Your task to perform on an android device: open app "Facebook Messenger" (install if not already installed) Image 0: 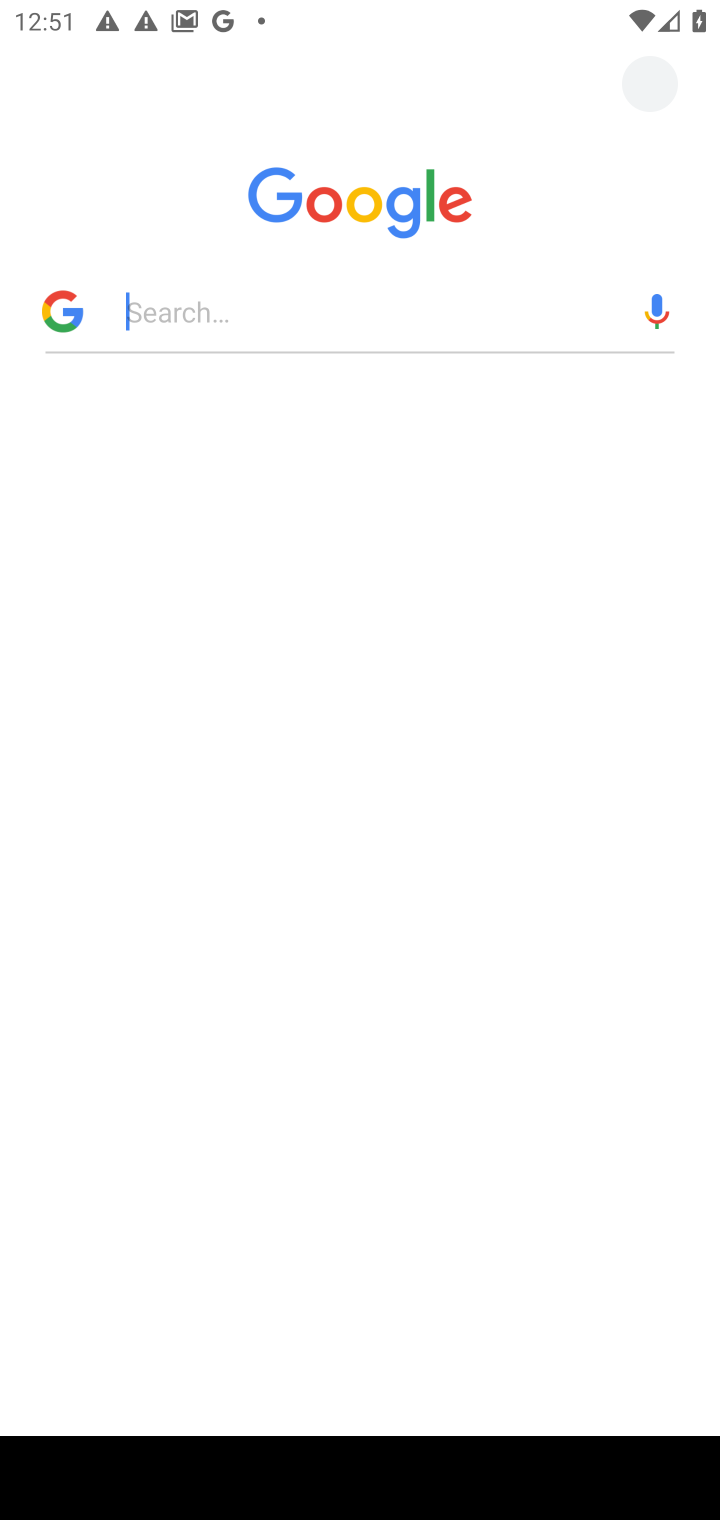
Step 0: press home button
Your task to perform on an android device: open app "Facebook Messenger" (install if not already installed) Image 1: 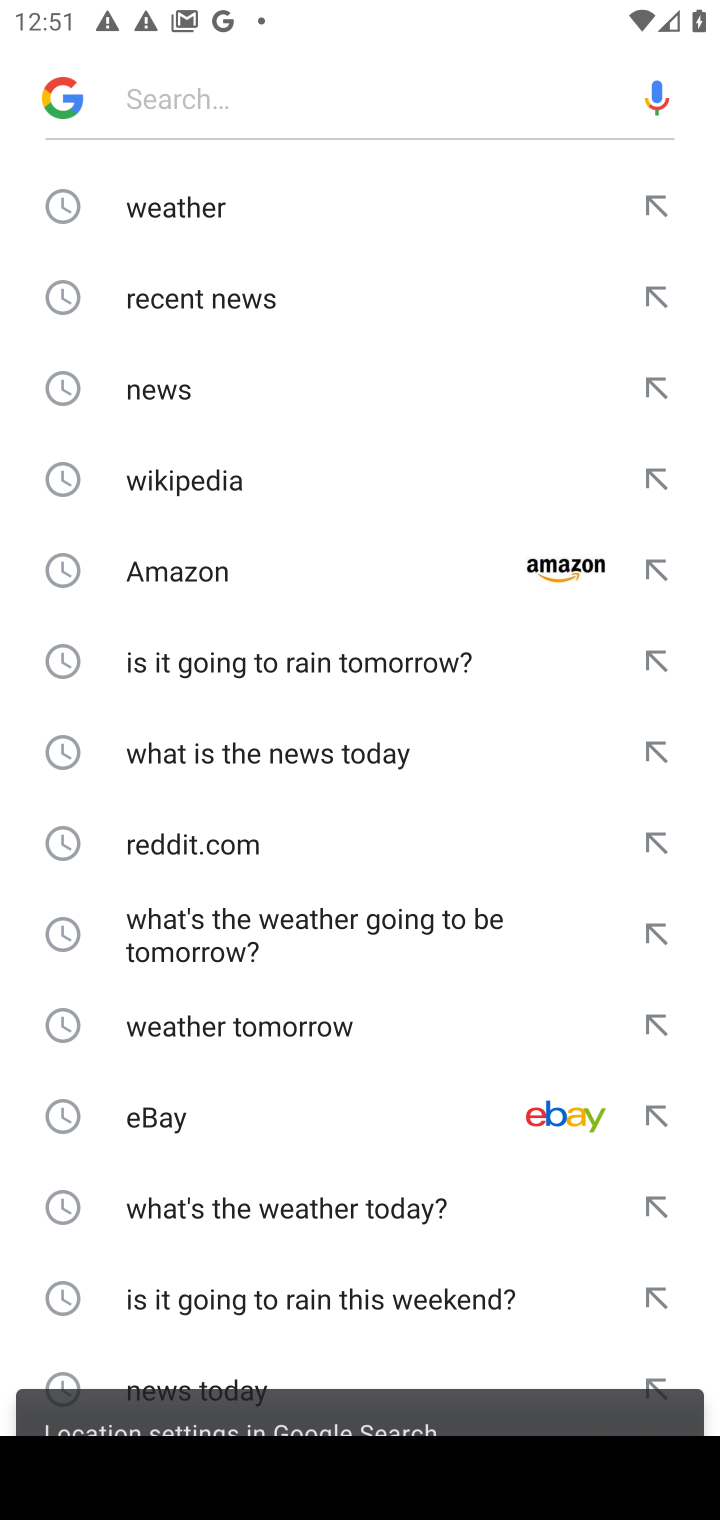
Step 1: press home button
Your task to perform on an android device: open app "Facebook Messenger" (install if not already installed) Image 2: 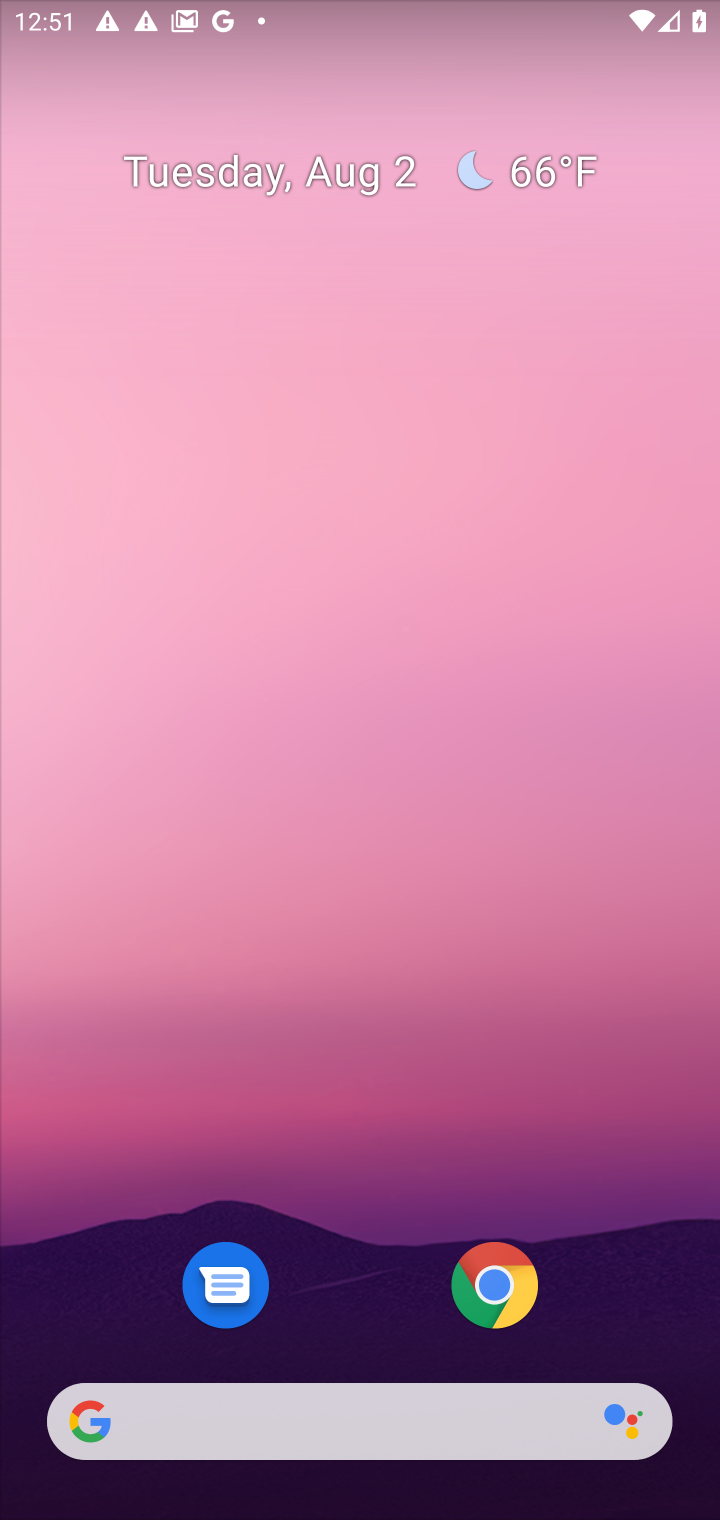
Step 2: drag from (629, 1239) to (529, 357)
Your task to perform on an android device: open app "Facebook Messenger" (install if not already installed) Image 3: 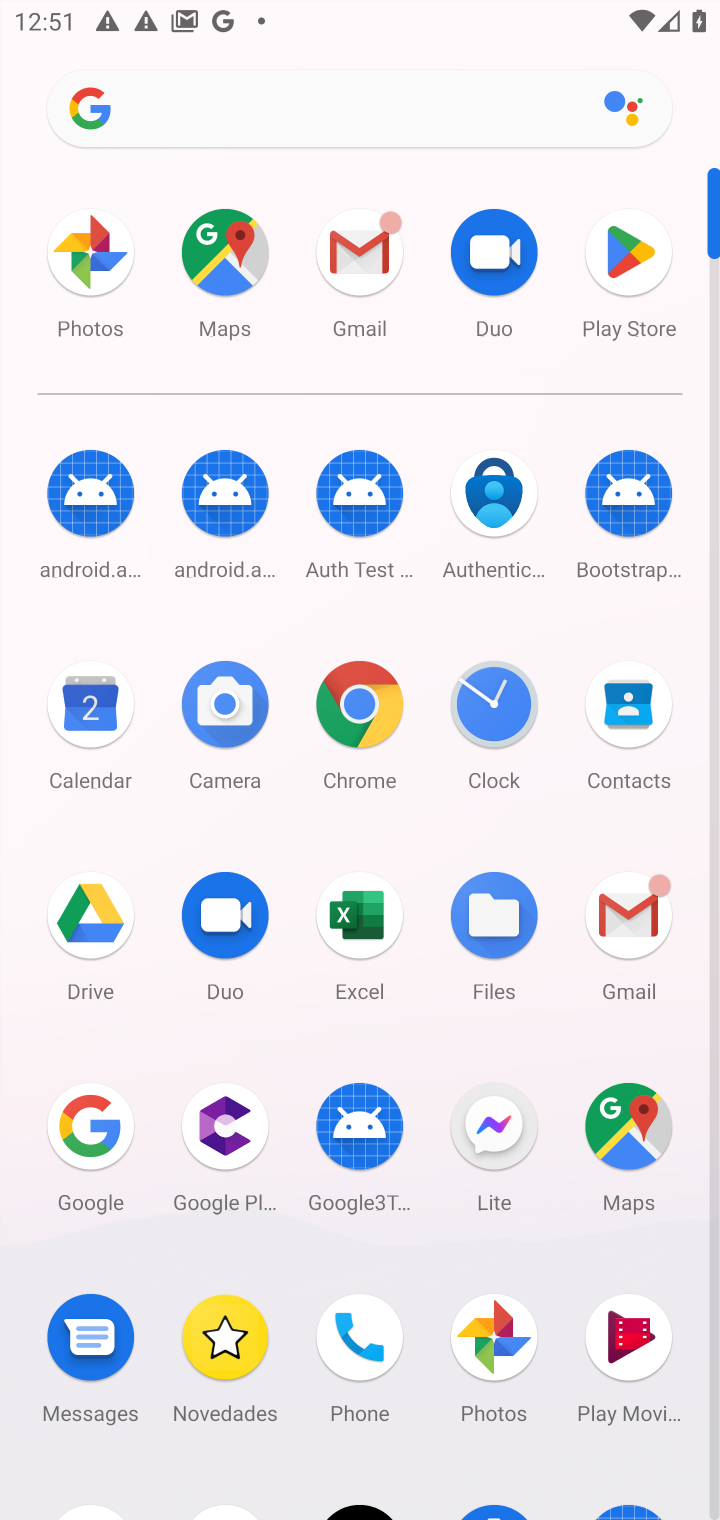
Step 3: drag from (422, 1428) to (444, 584)
Your task to perform on an android device: open app "Facebook Messenger" (install if not already installed) Image 4: 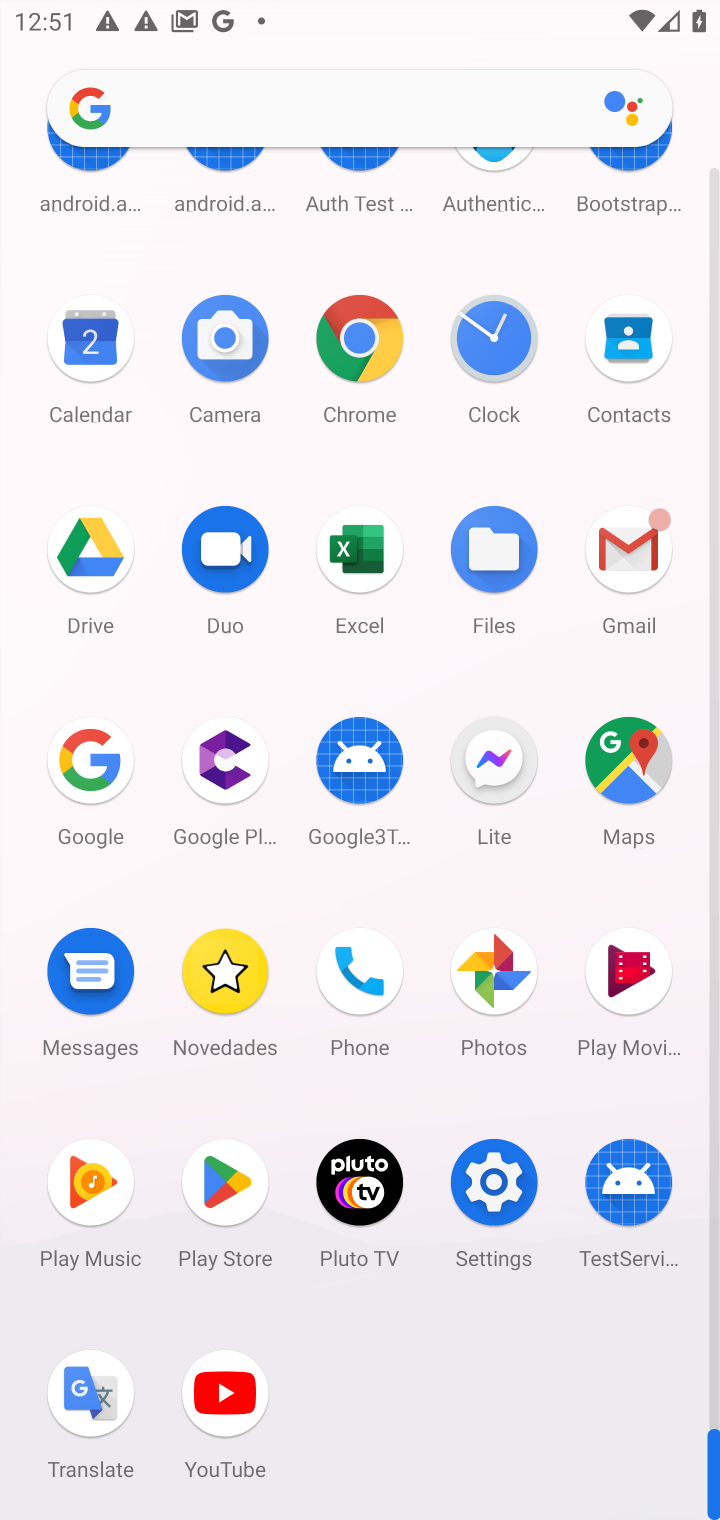
Step 4: click (215, 1173)
Your task to perform on an android device: open app "Facebook Messenger" (install if not already installed) Image 5: 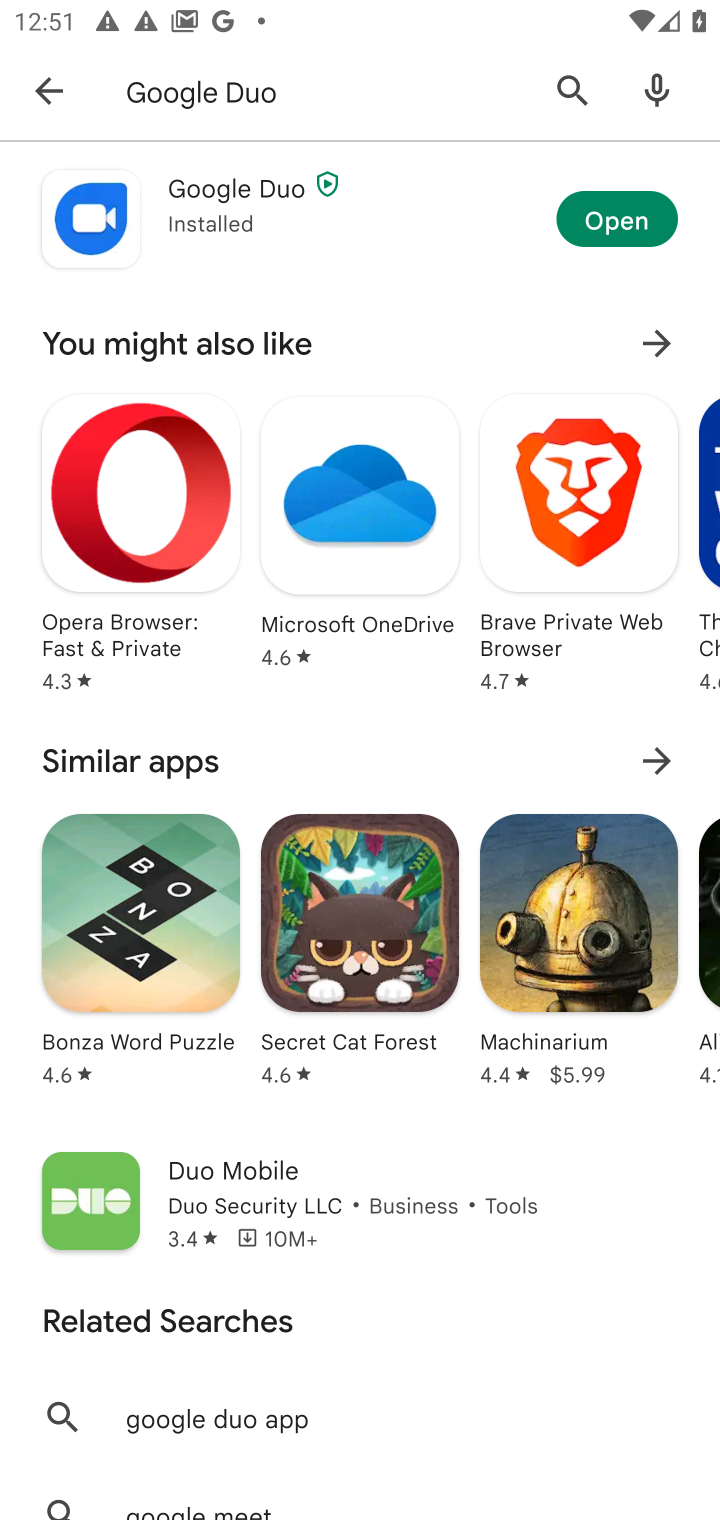
Step 5: click (344, 103)
Your task to perform on an android device: open app "Facebook Messenger" (install if not already installed) Image 6: 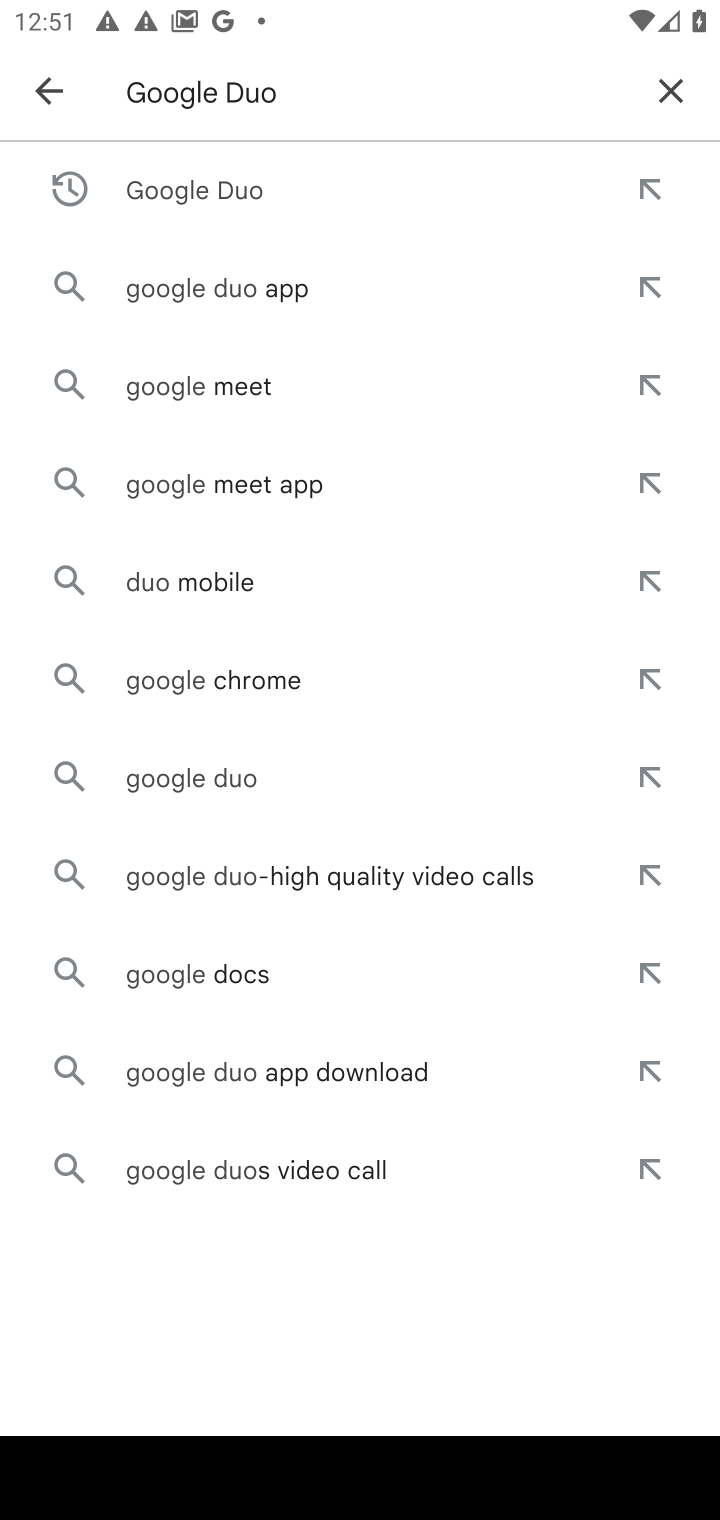
Step 6: click (665, 95)
Your task to perform on an android device: open app "Facebook Messenger" (install if not already installed) Image 7: 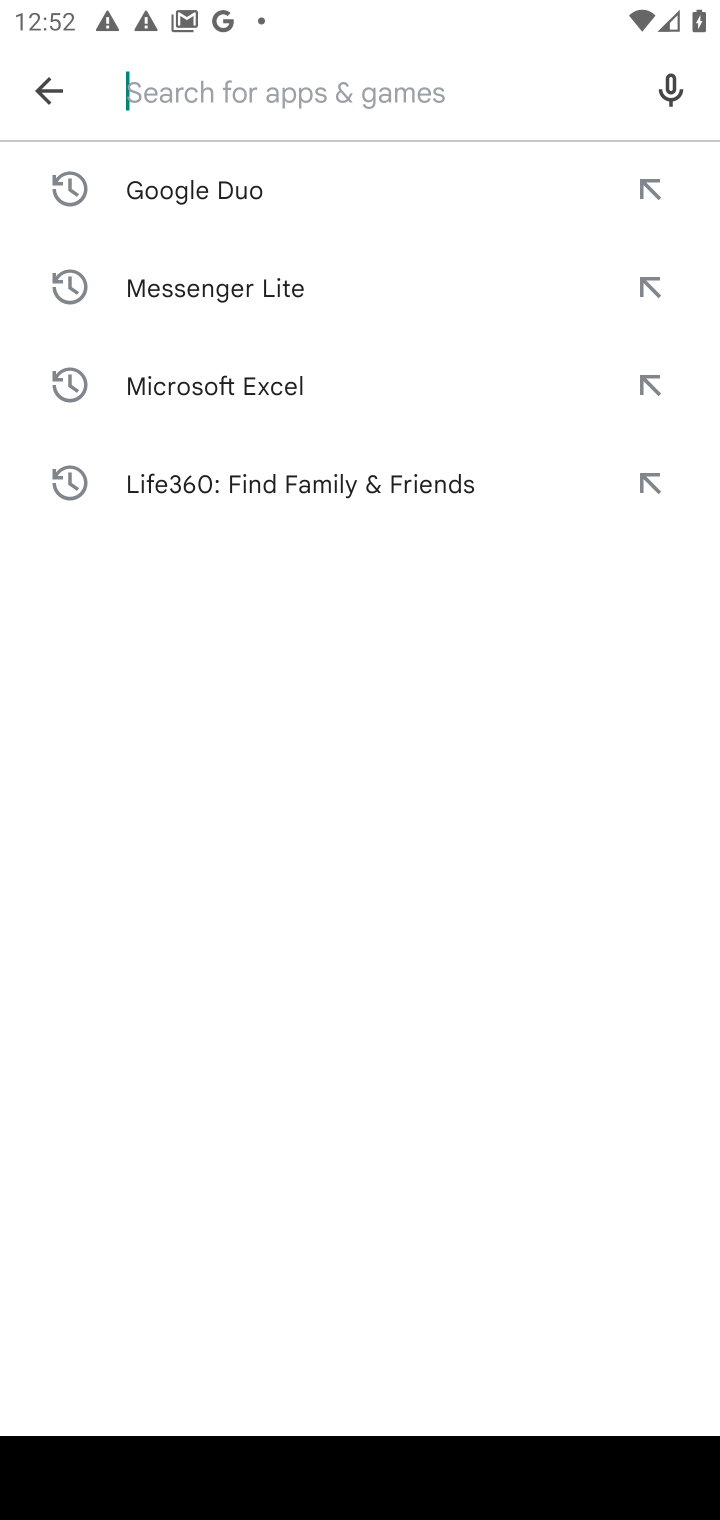
Step 7: type "Facebook Messenger"
Your task to perform on an android device: open app "Facebook Messenger" (install if not already installed) Image 8: 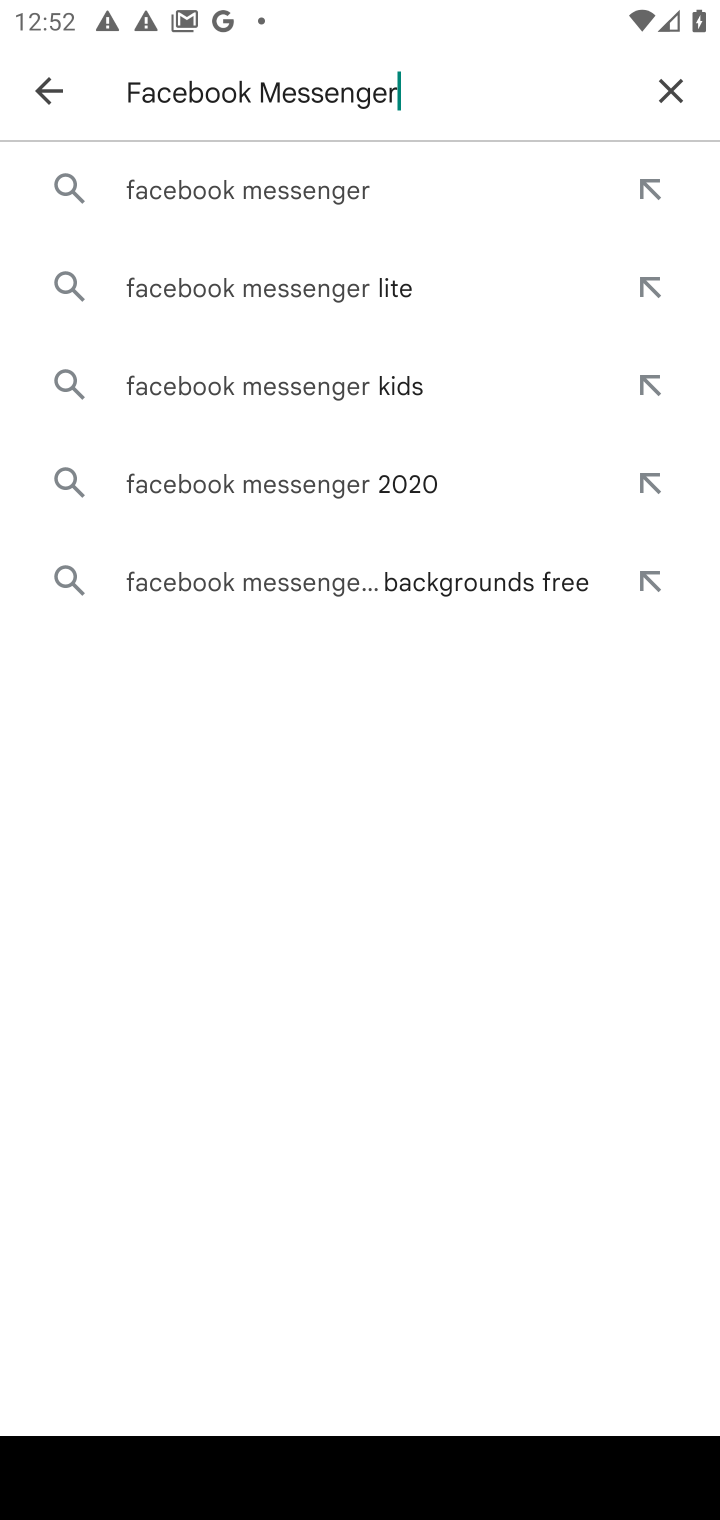
Step 8: press enter
Your task to perform on an android device: open app "Facebook Messenger" (install if not already installed) Image 9: 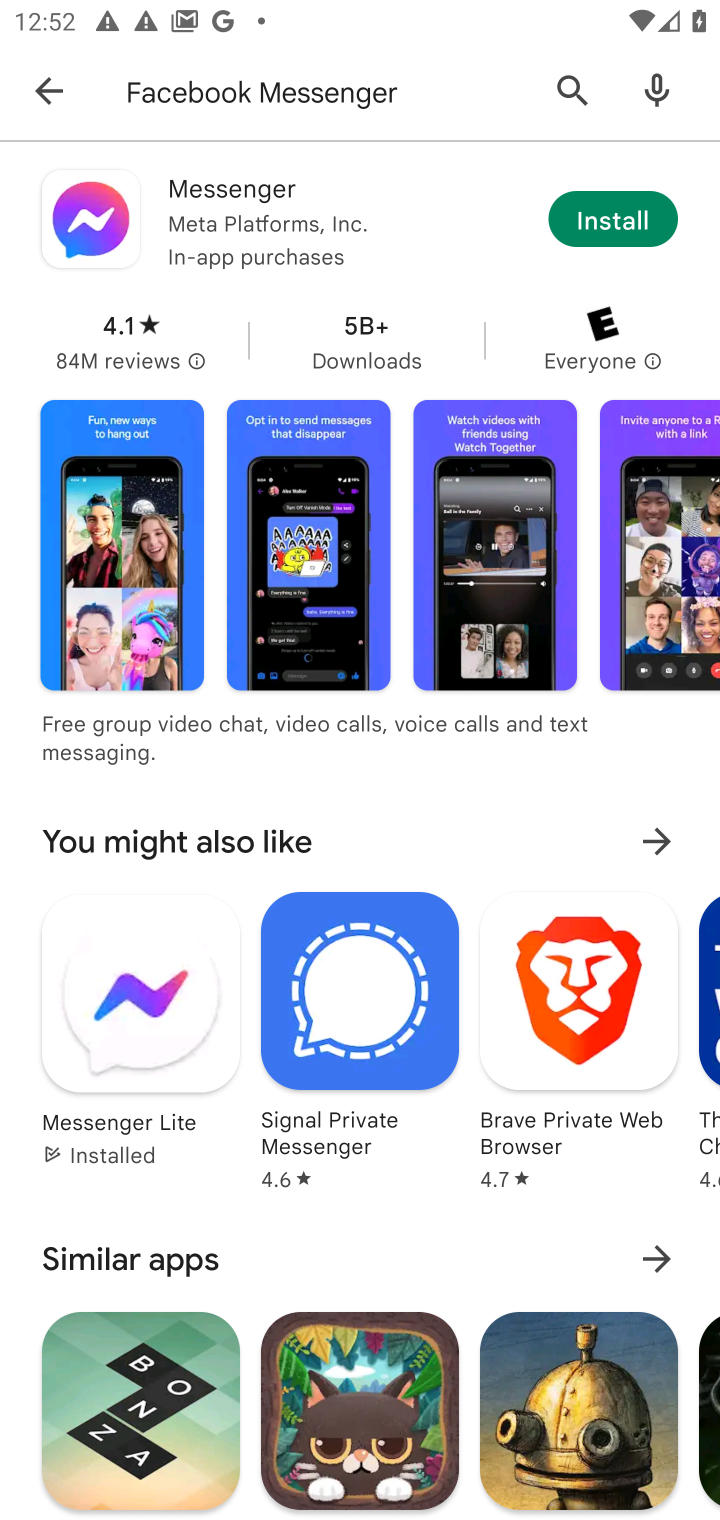
Step 9: click (637, 228)
Your task to perform on an android device: open app "Facebook Messenger" (install if not already installed) Image 10: 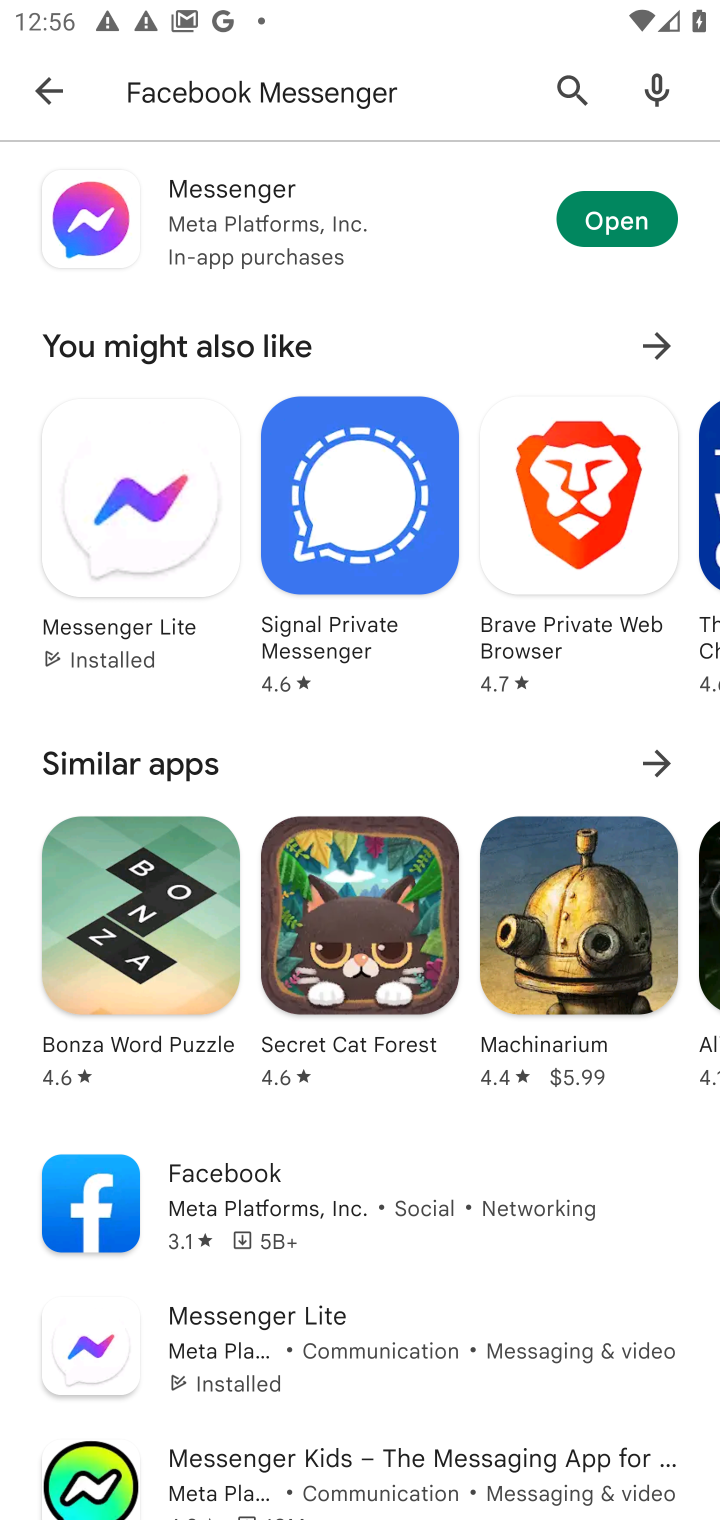
Step 10: click (638, 215)
Your task to perform on an android device: open app "Facebook Messenger" (install if not already installed) Image 11: 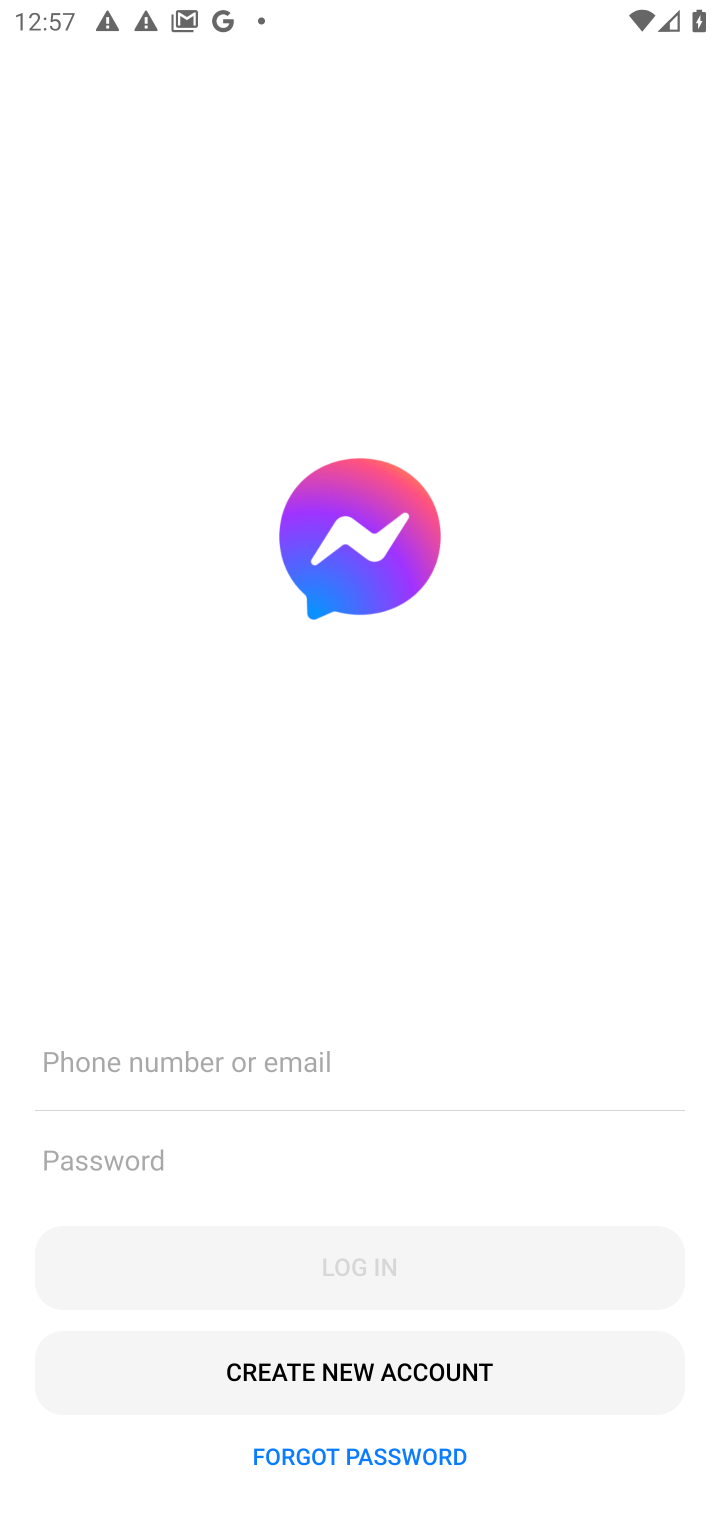
Step 11: task complete